Your task to perform on an android device: turn on data saver in the chrome app Image 0: 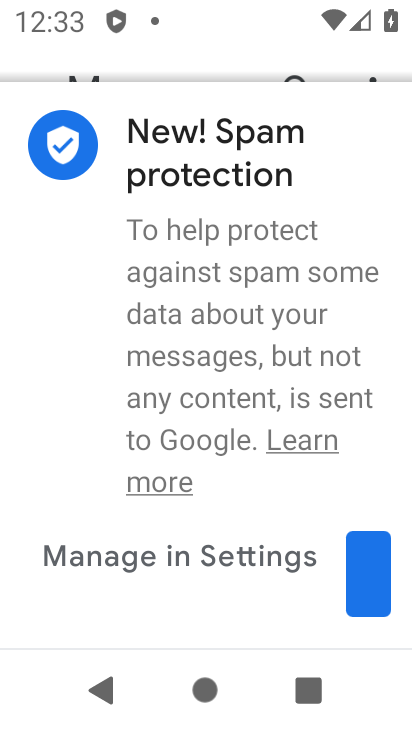
Step 0: press home button
Your task to perform on an android device: turn on data saver in the chrome app Image 1: 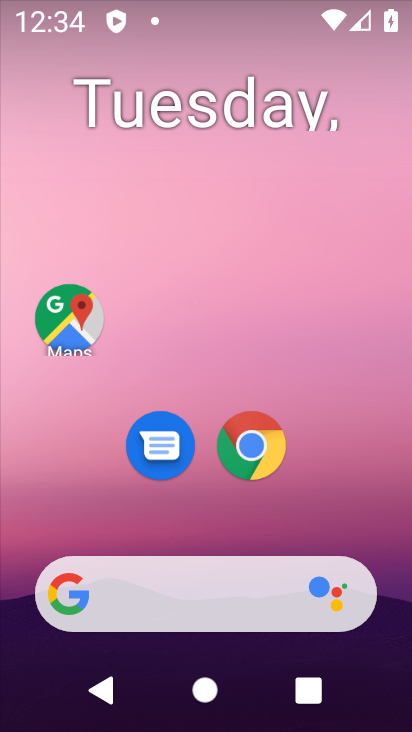
Step 1: click (260, 449)
Your task to perform on an android device: turn on data saver in the chrome app Image 2: 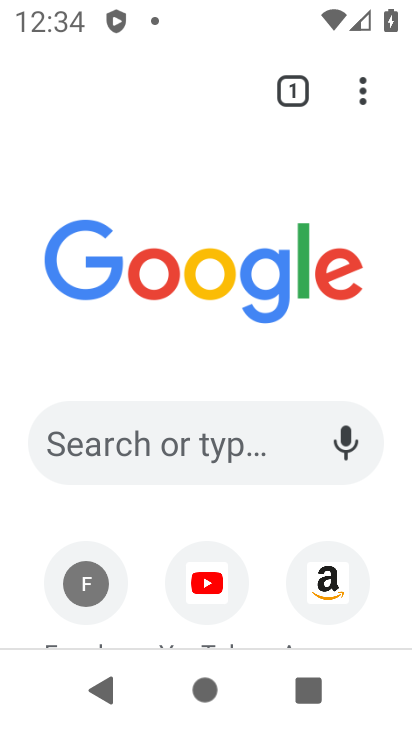
Step 2: drag from (367, 89) to (243, 489)
Your task to perform on an android device: turn on data saver in the chrome app Image 3: 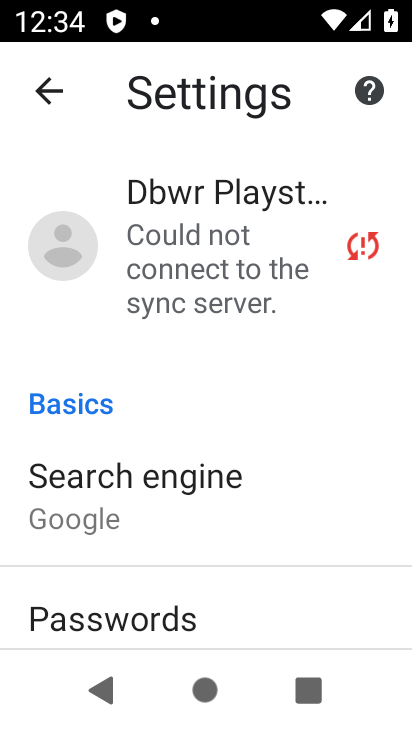
Step 3: drag from (162, 638) to (279, 197)
Your task to perform on an android device: turn on data saver in the chrome app Image 4: 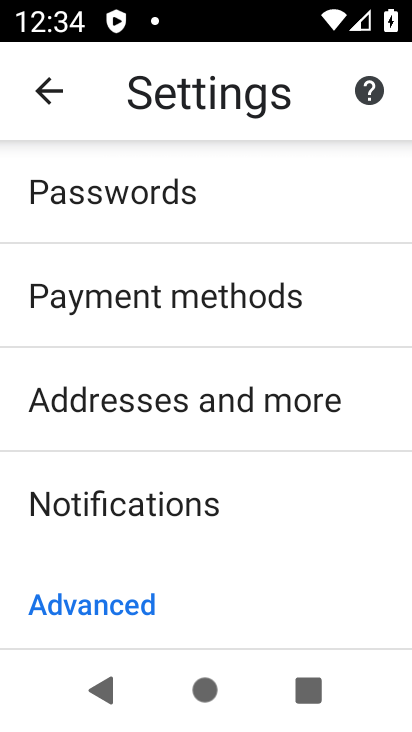
Step 4: drag from (74, 527) to (204, 177)
Your task to perform on an android device: turn on data saver in the chrome app Image 5: 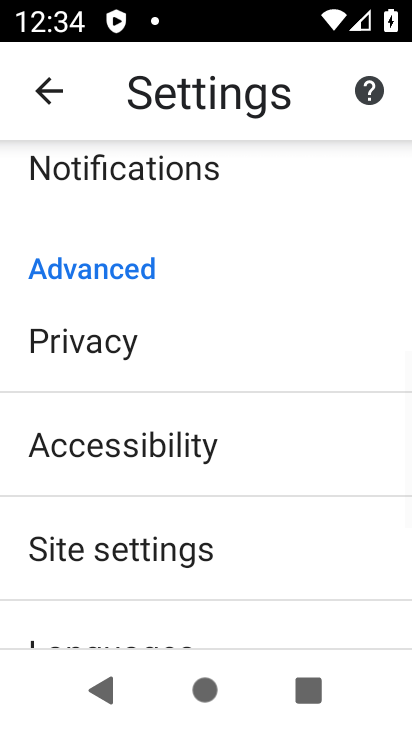
Step 5: drag from (131, 556) to (182, 271)
Your task to perform on an android device: turn on data saver in the chrome app Image 6: 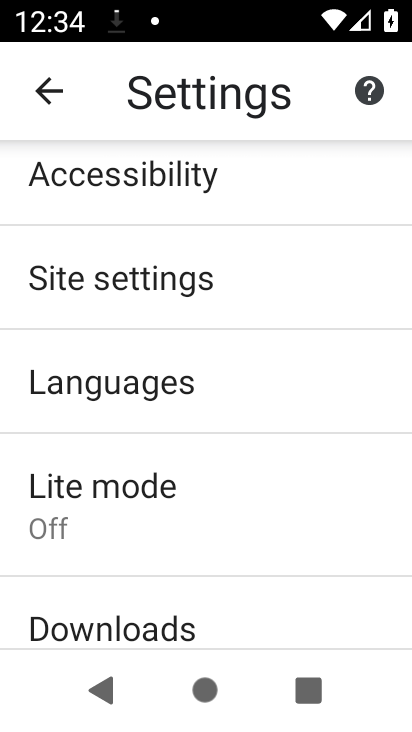
Step 6: click (198, 538)
Your task to perform on an android device: turn on data saver in the chrome app Image 7: 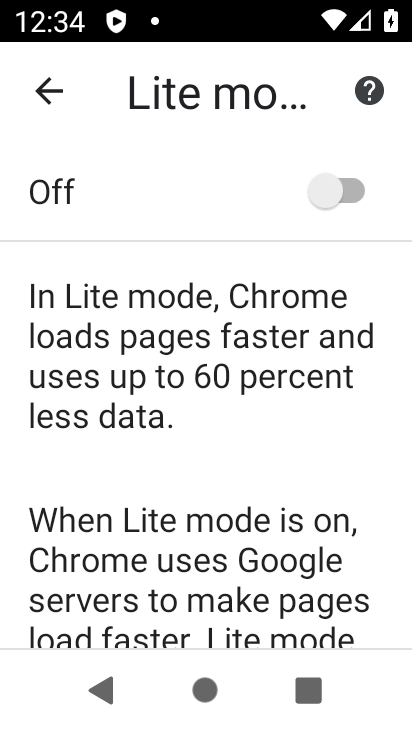
Step 7: click (383, 190)
Your task to perform on an android device: turn on data saver in the chrome app Image 8: 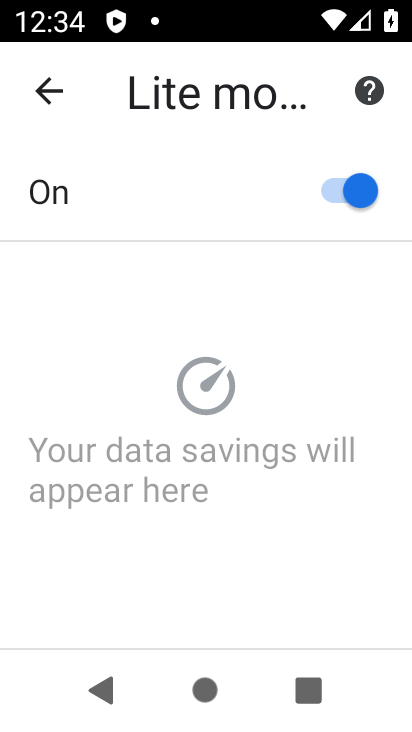
Step 8: task complete